Your task to perform on an android device: Open Google Chrome and open the bookmarks view Image 0: 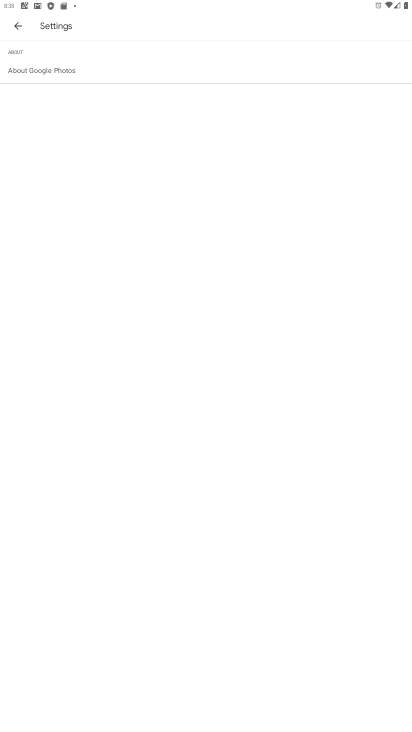
Step 0: press home button
Your task to perform on an android device: Open Google Chrome and open the bookmarks view Image 1: 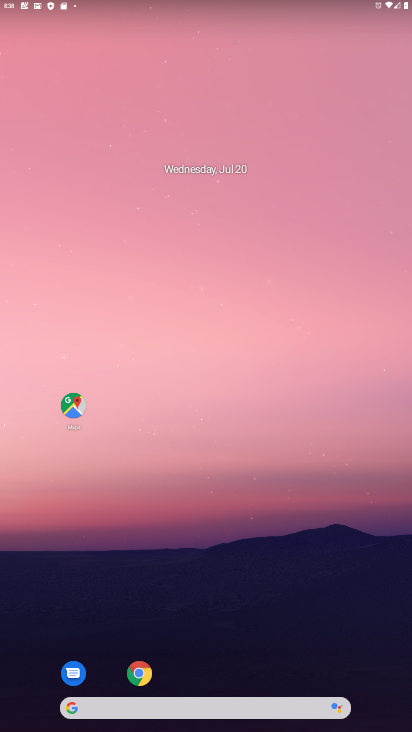
Step 1: click (143, 674)
Your task to perform on an android device: Open Google Chrome and open the bookmarks view Image 2: 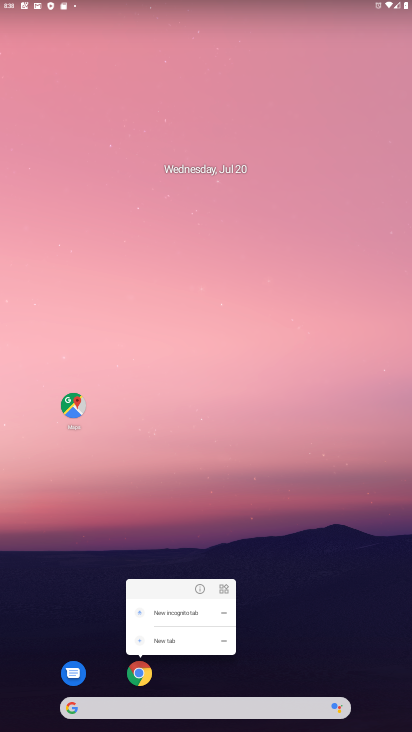
Step 2: click (142, 674)
Your task to perform on an android device: Open Google Chrome and open the bookmarks view Image 3: 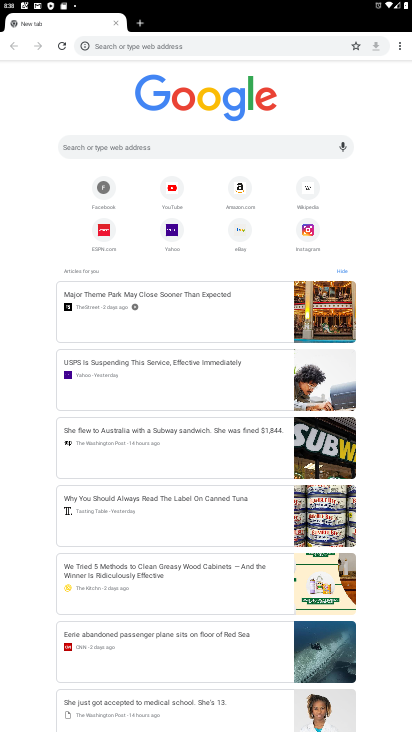
Step 3: click (395, 46)
Your task to perform on an android device: Open Google Chrome and open the bookmarks view Image 4: 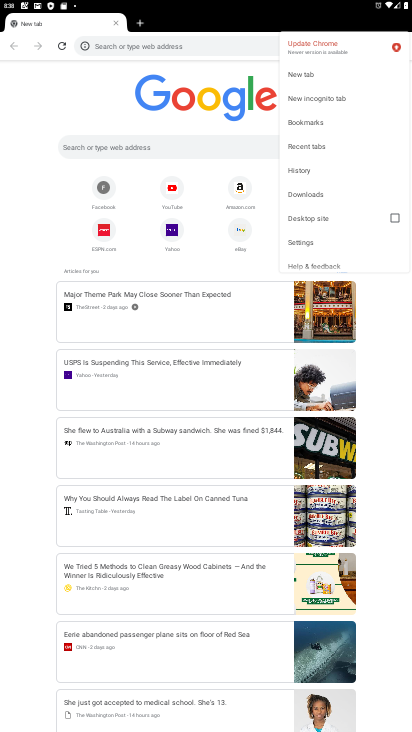
Step 4: click (309, 122)
Your task to perform on an android device: Open Google Chrome and open the bookmarks view Image 5: 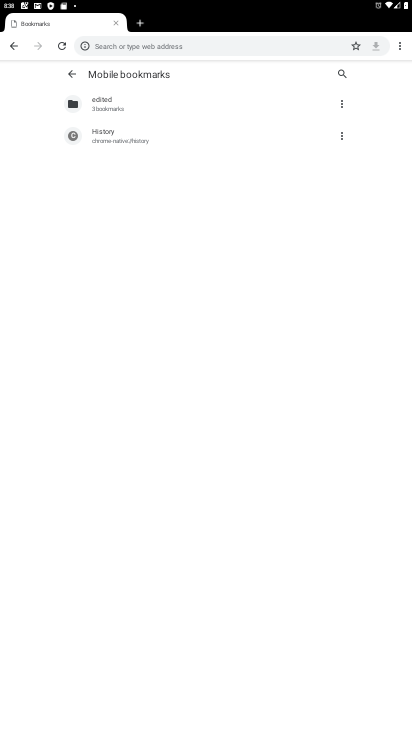
Step 5: click (118, 104)
Your task to perform on an android device: Open Google Chrome and open the bookmarks view Image 6: 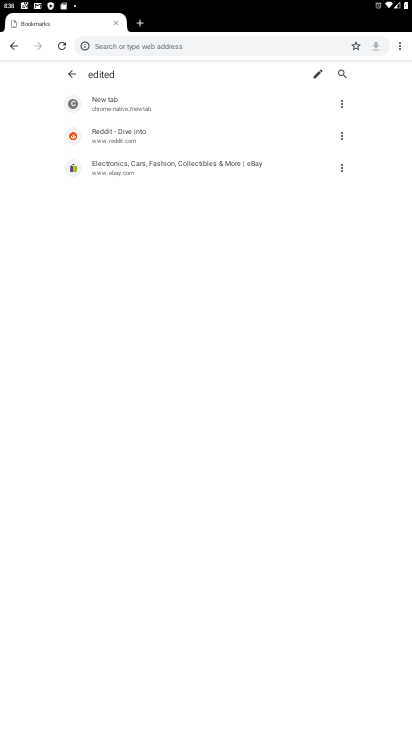
Step 6: click (118, 146)
Your task to perform on an android device: Open Google Chrome and open the bookmarks view Image 7: 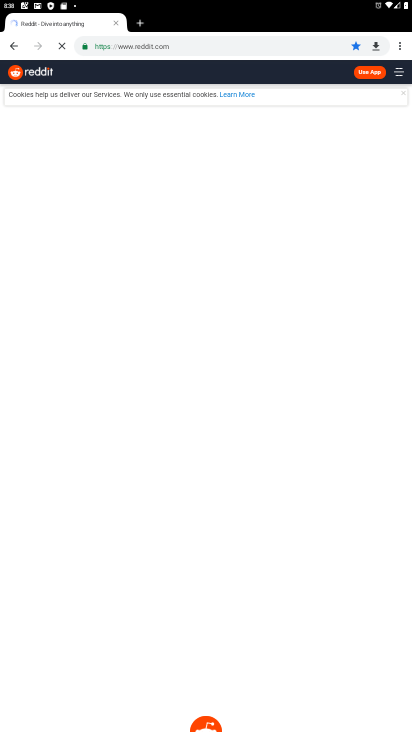
Step 7: task complete